Your task to perform on an android device: change the clock display to show seconds Image 0: 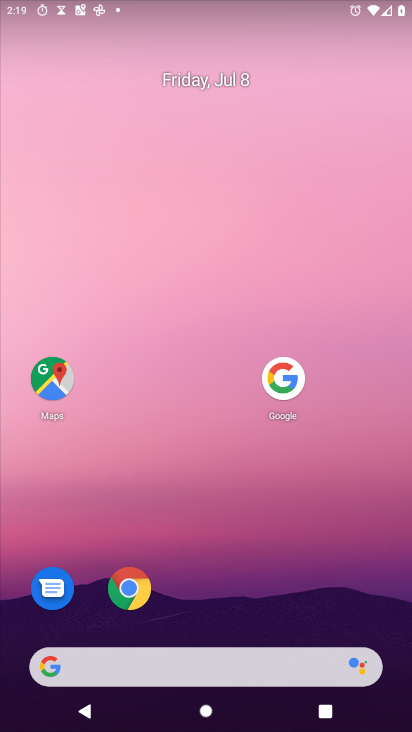
Step 0: drag from (239, 640) to (333, 90)
Your task to perform on an android device: change the clock display to show seconds Image 1: 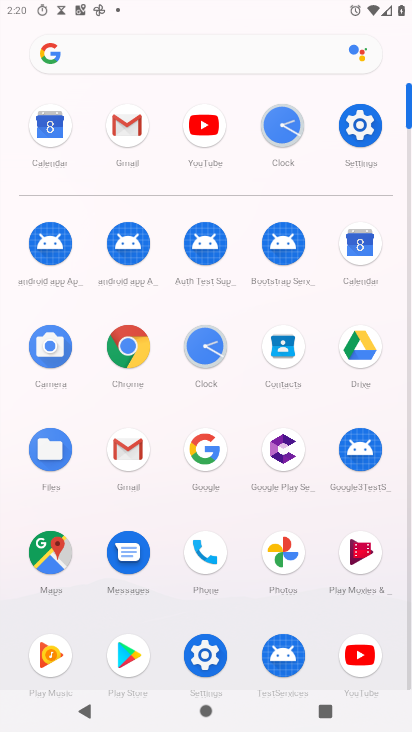
Step 1: click (286, 123)
Your task to perform on an android device: change the clock display to show seconds Image 2: 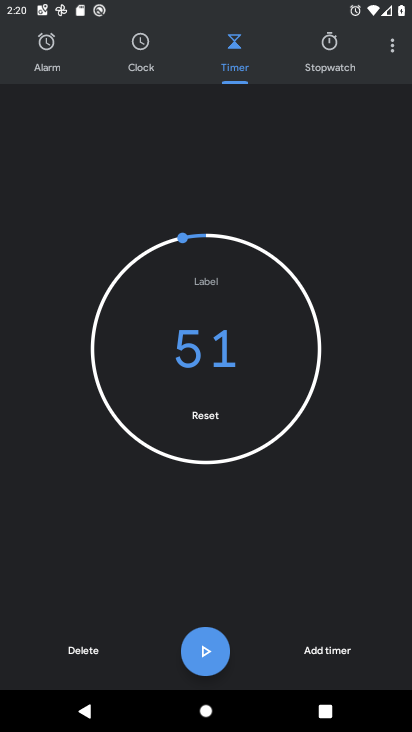
Step 2: click (283, 124)
Your task to perform on an android device: change the clock display to show seconds Image 3: 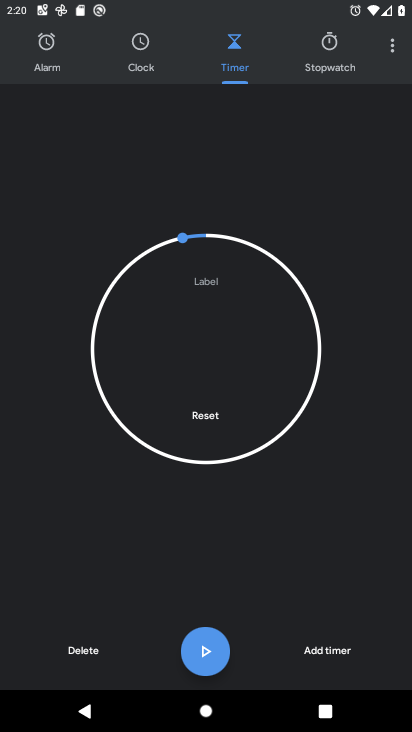
Step 3: click (389, 49)
Your task to perform on an android device: change the clock display to show seconds Image 4: 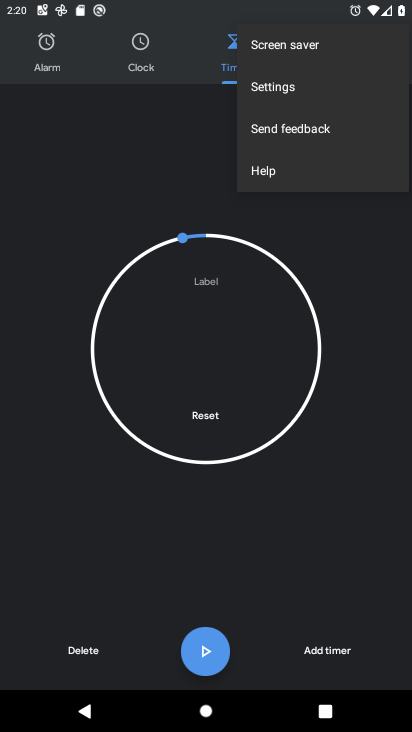
Step 4: click (286, 87)
Your task to perform on an android device: change the clock display to show seconds Image 5: 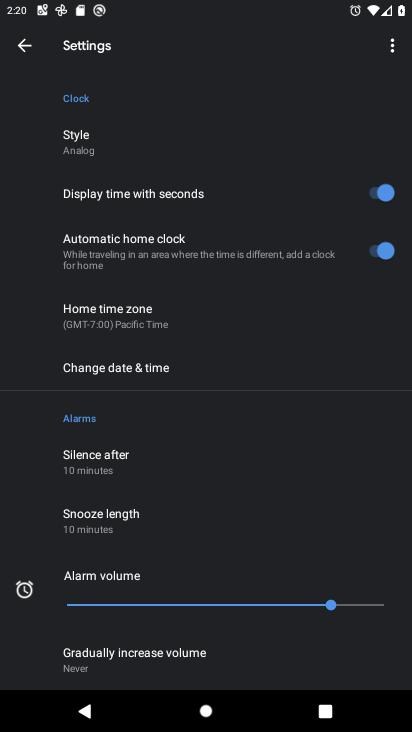
Step 5: task complete